Your task to perform on an android device: Go to settings Image 0: 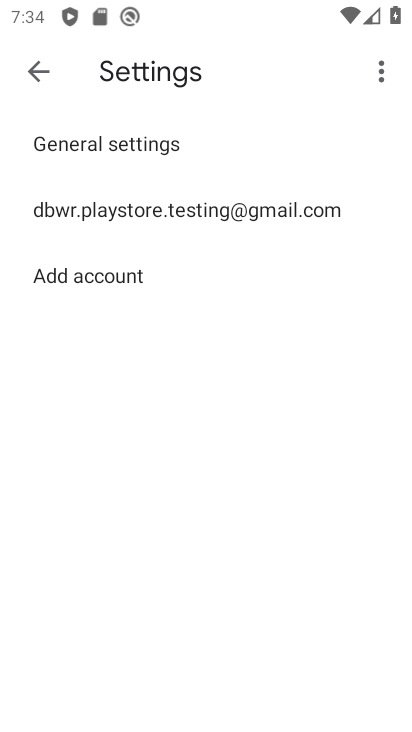
Step 0: press home button
Your task to perform on an android device: Go to settings Image 1: 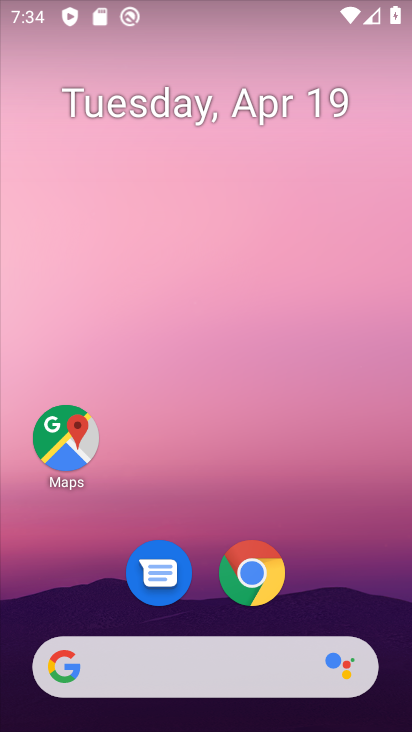
Step 1: drag from (322, 304) to (325, 131)
Your task to perform on an android device: Go to settings Image 2: 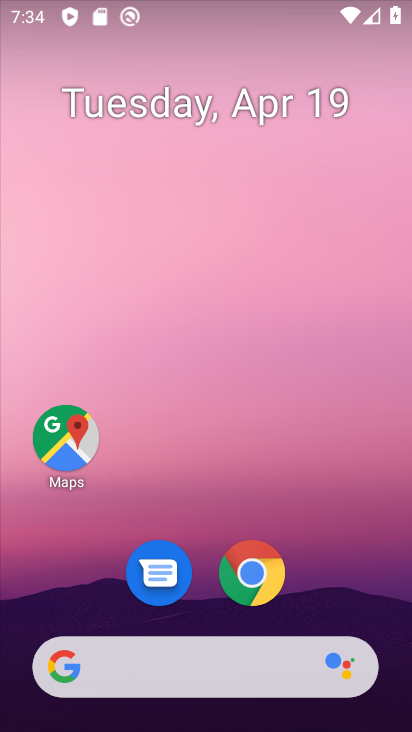
Step 2: drag from (309, 543) to (274, 118)
Your task to perform on an android device: Go to settings Image 3: 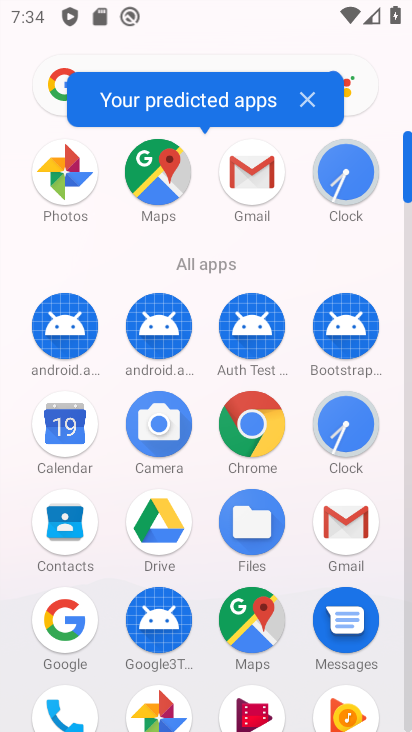
Step 3: drag from (314, 507) to (342, 176)
Your task to perform on an android device: Go to settings Image 4: 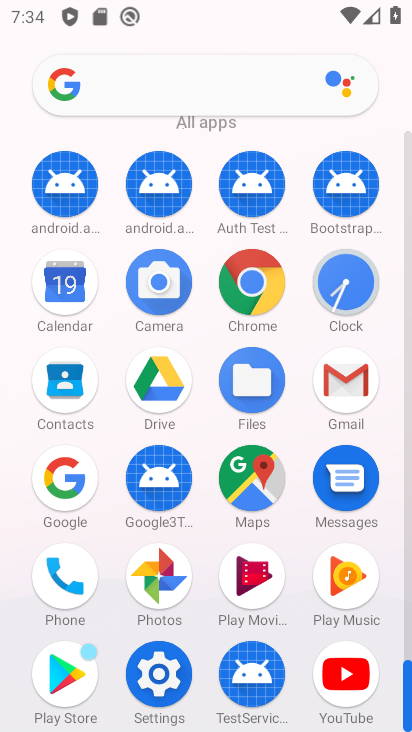
Step 4: click (169, 691)
Your task to perform on an android device: Go to settings Image 5: 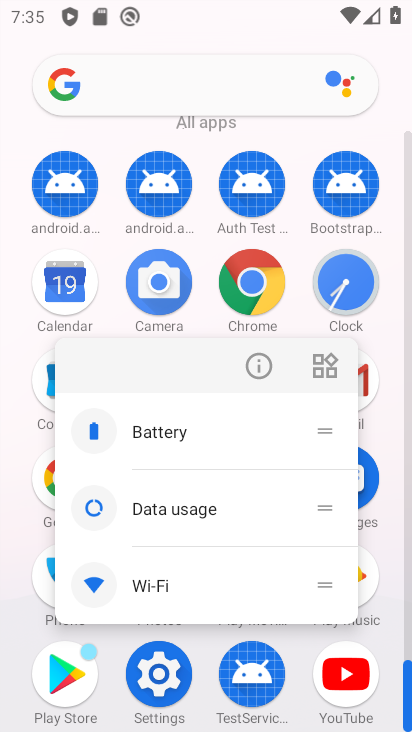
Step 5: click (170, 689)
Your task to perform on an android device: Go to settings Image 6: 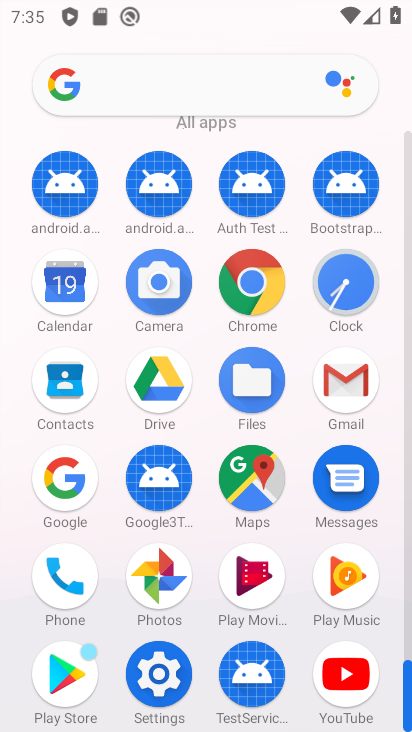
Step 6: click (161, 665)
Your task to perform on an android device: Go to settings Image 7: 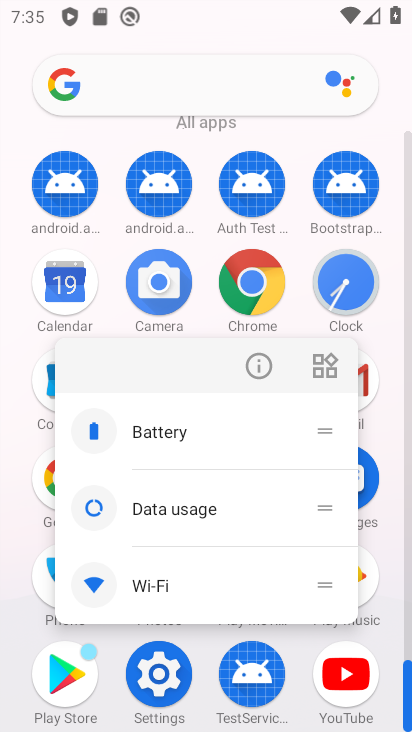
Step 7: click (160, 676)
Your task to perform on an android device: Go to settings Image 8: 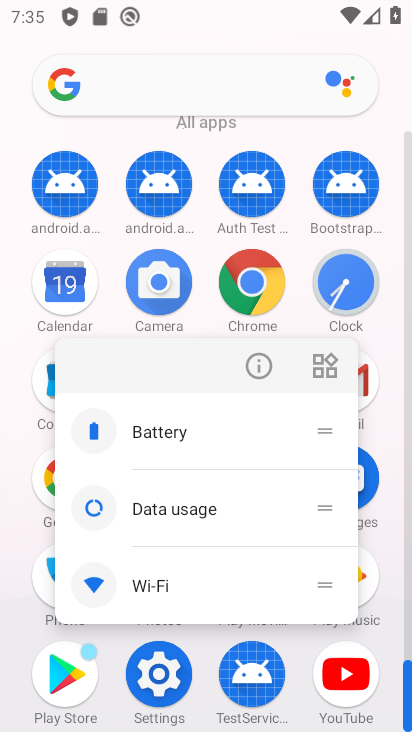
Step 8: click (158, 670)
Your task to perform on an android device: Go to settings Image 9: 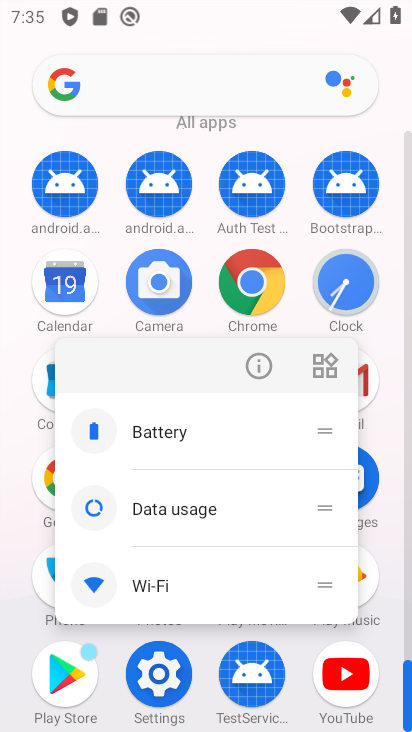
Step 9: drag from (202, 652) to (167, 670)
Your task to perform on an android device: Go to settings Image 10: 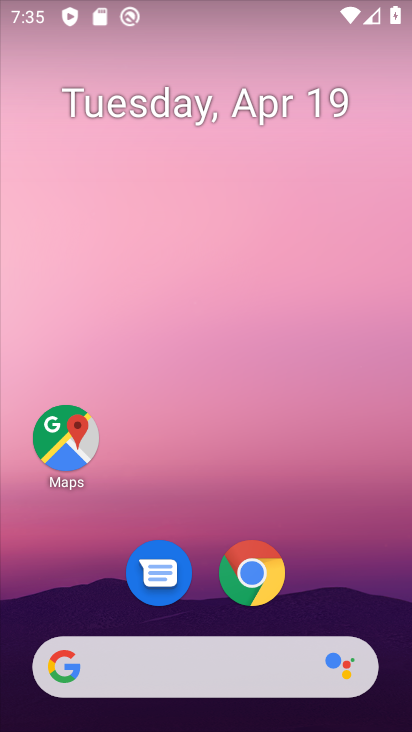
Step 10: drag from (318, 543) to (299, 27)
Your task to perform on an android device: Go to settings Image 11: 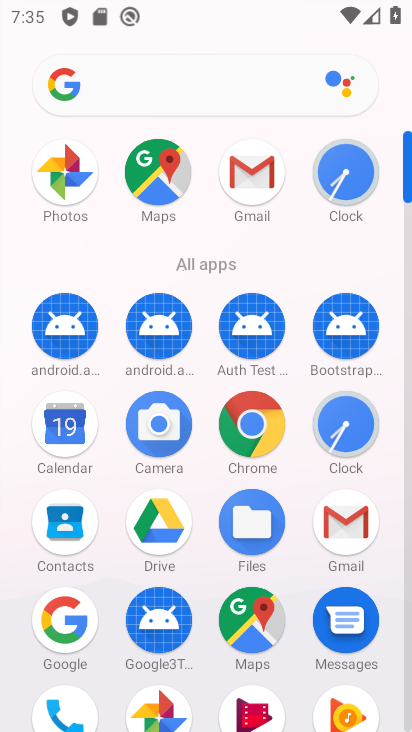
Step 11: drag from (209, 480) to (216, 162)
Your task to perform on an android device: Go to settings Image 12: 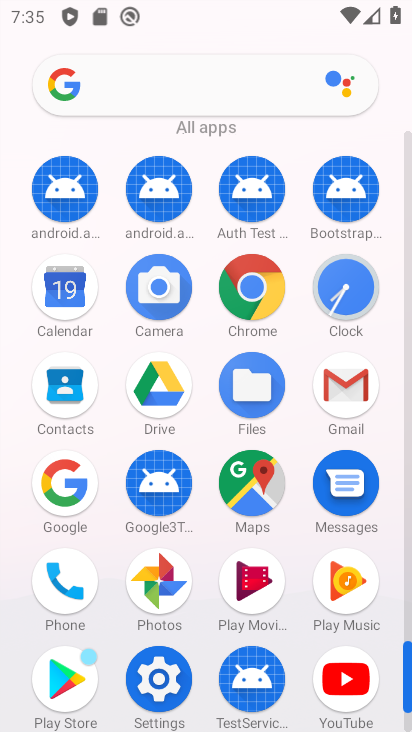
Step 12: click (161, 674)
Your task to perform on an android device: Go to settings Image 13: 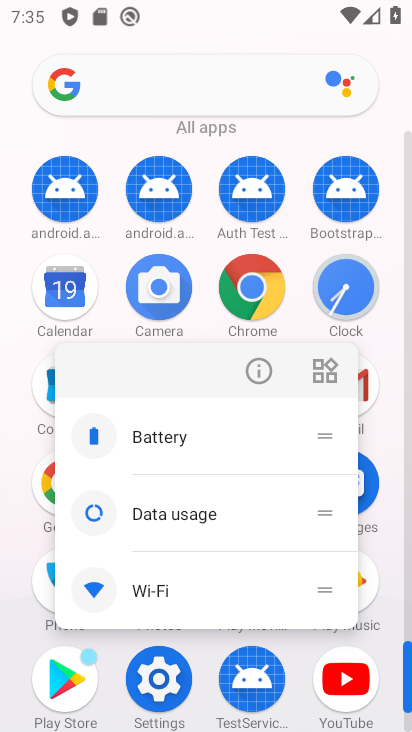
Step 13: click (160, 689)
Your task to perform on an android device: Go to settings Image 14: 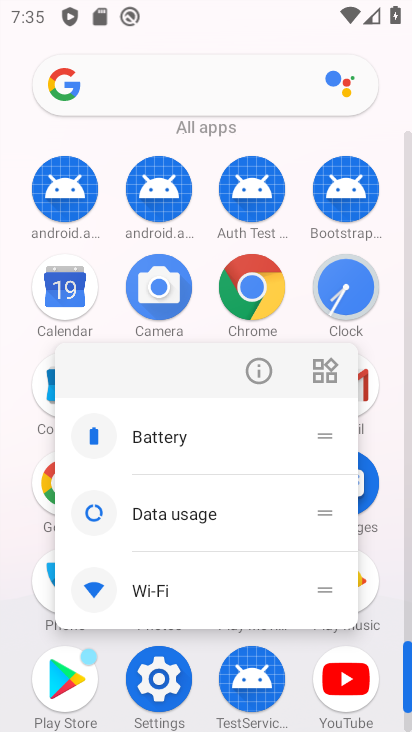
Step 14: click (160, 686)
Your task to perform on an android device: Go to settings Image 15: 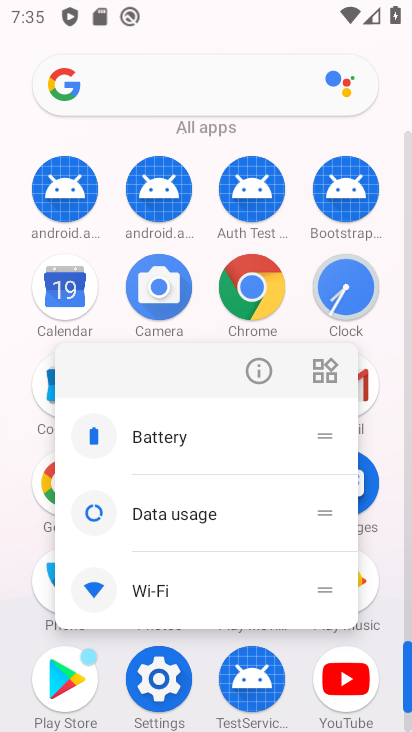
Step 15: click (154, 664)
Your task to perform on an android device: Go to settings Image 16: 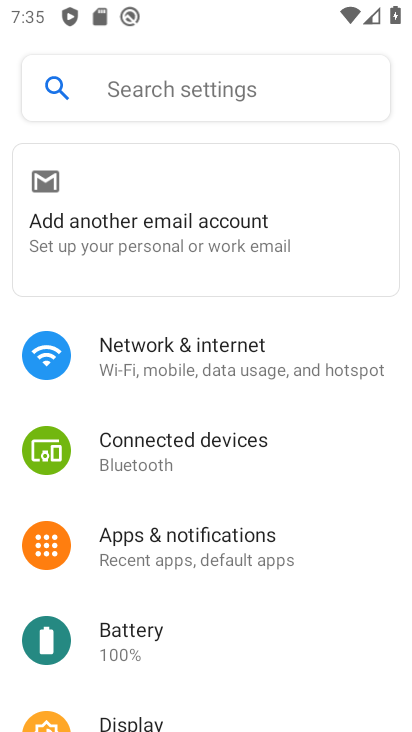
Step 16: task complete